Your task to perform on an android device: Do I have any events today? Image 0: 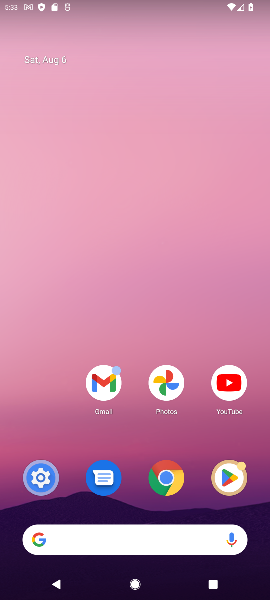
Step 0: press home button
Your task to perform on an android device: Do I have any events today? Image 1: 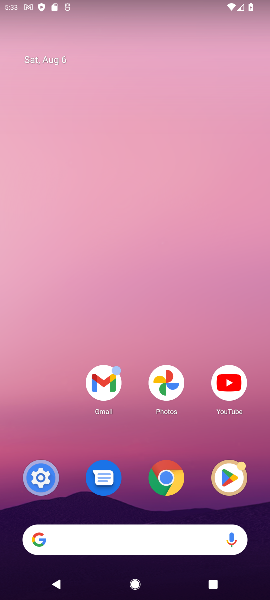
Step 1: drag from (135, 503) to (146, 88)
Your task to perform on an android device: Do I have any events today? Image 2: 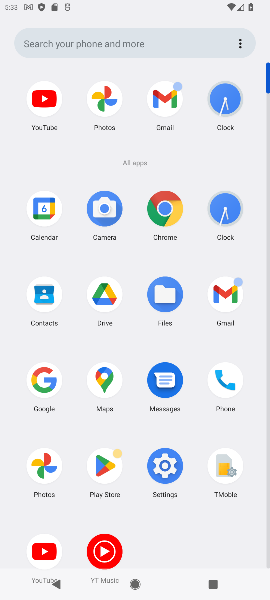
Step 2: click (45, 211)
Your task to perform on an android device: Do I have any events today? Image 3: 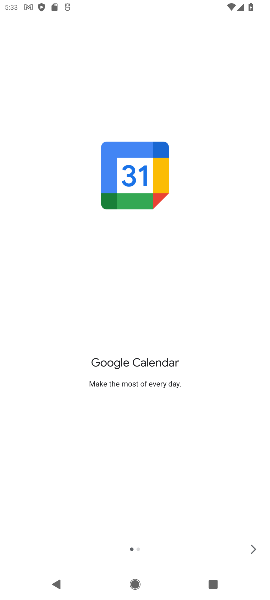
Step 3: click (258, 547)
Your task to perform on an android device: Do I have any events today? Image 4: 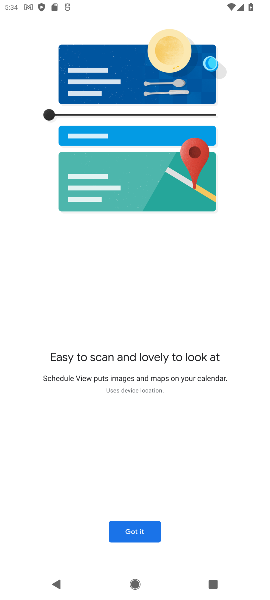
Step 4: click (123, 530)
Your task to perform on an android device: Do I have any events today? Image 5: 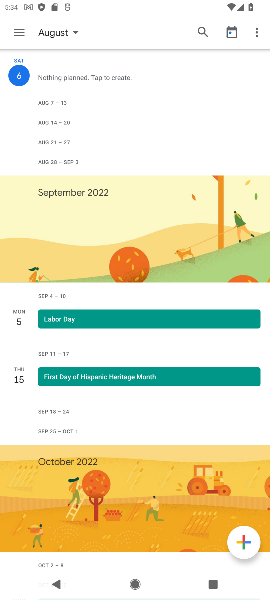
Step 5: click (60, 40)
Your task to perform on an android device: Do I have any events today? Image 6: 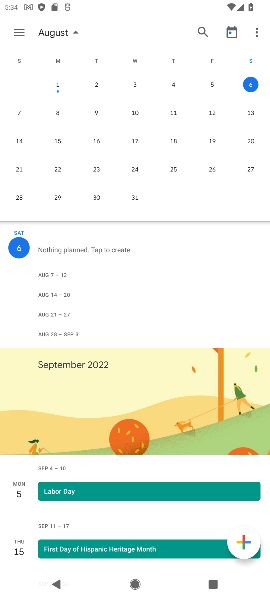
Step 6: click (250, 89)
Your task to perform on an android device: Do I have any events today? Image 7: 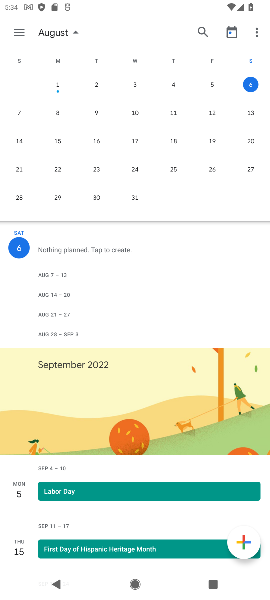
Step 7: task complete